Your task to perform on an android device: change the clock display to show seconds Image 0: 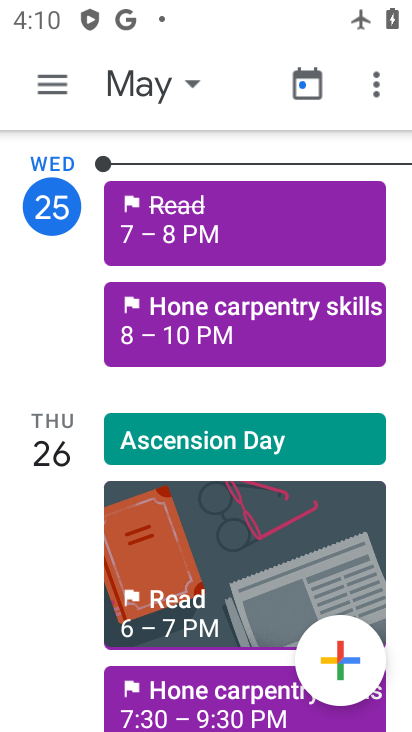
Step 0: press home button
Your task to perform on an android device: change the clock display to show seconds Image 1: 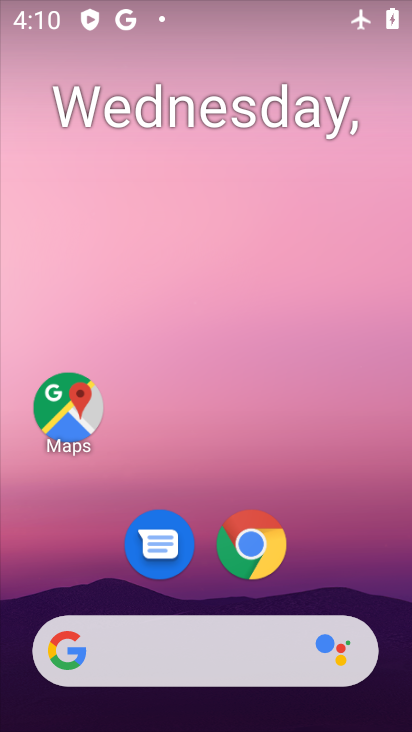
Step 1: drag from (359, 521) to (377, 299)
Your task to perform on an android device: change the clock display to show seconds Image 2: 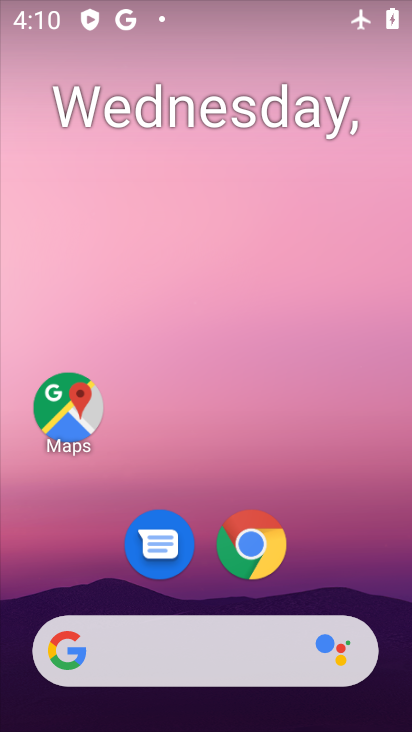
Step 2: drag from (342, 567) to (385, 220)
Your task to perform on an android device: change the clock display to show seconds Image 3: 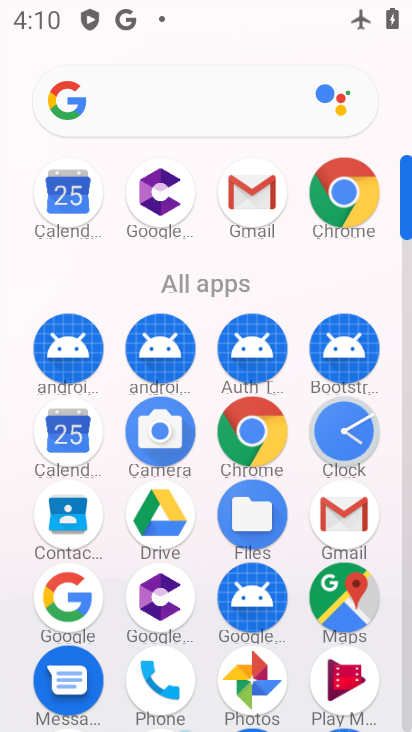
Step 3: click (359, 447)
Your task to perform on an android device: change the clock display to show seconds Image 4: 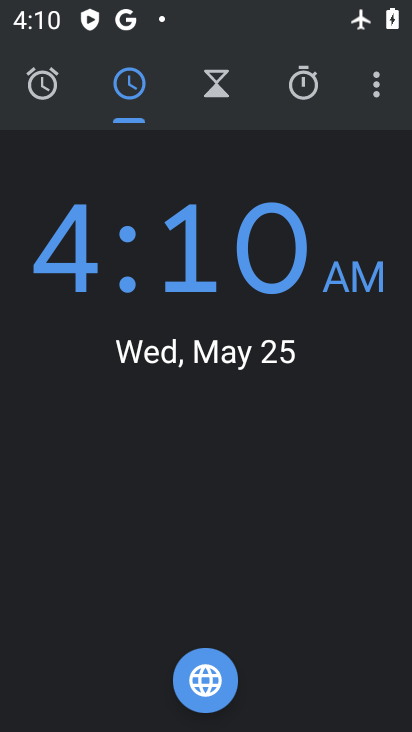
Step 4: click (371, 97)
Your task to perform on an android device: change the clock display to show seconds Image 5: 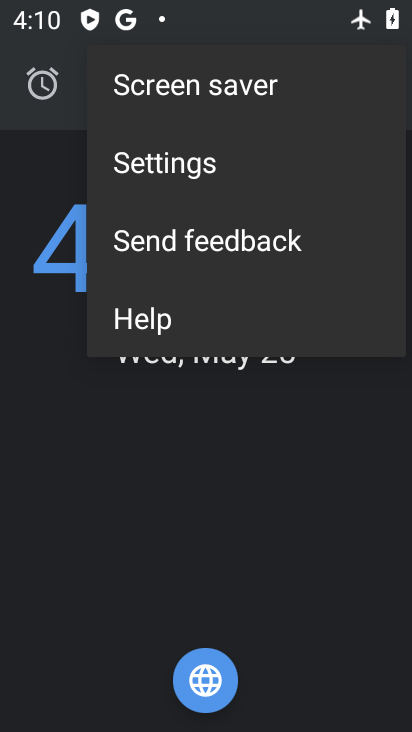
Step 5: click (267, 184)
Your task to perform on an android device: change the clock display to show seconds Image 6: 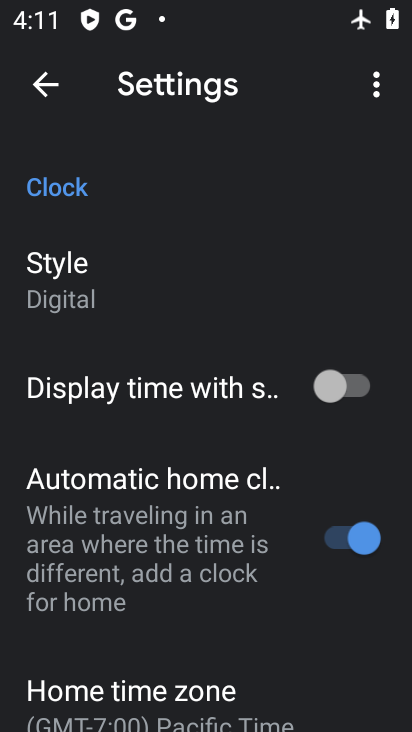
Step 6: drag from (268, 416) to (279, 250)
Your task to perform on an android device: change the clock display to show seconds Image 7: 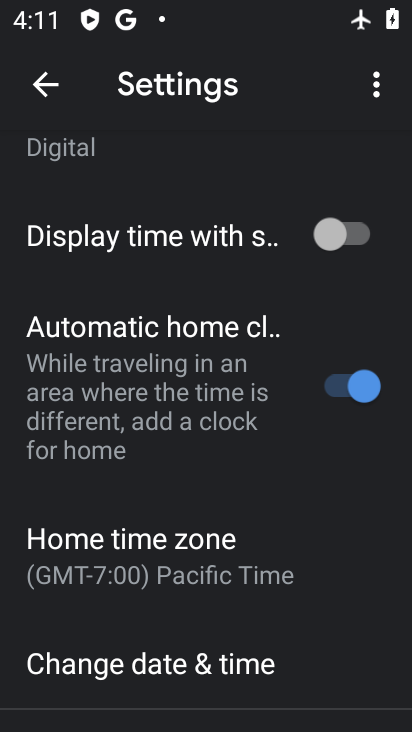
Step 7: drag from (290, 484) to (307, 369)
Your task to perform on an android device: change the clock display to show seconds Image 8: 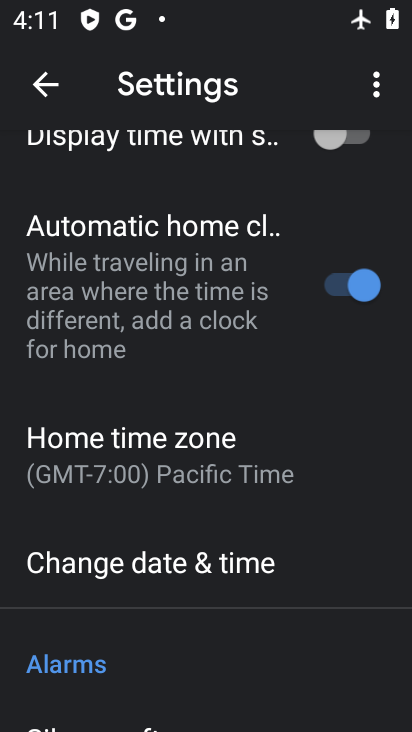
Step 8: drag from (297, 486) to (292, 363)
Your task to perform on an android device: change the clock display to show seconds Image 9: 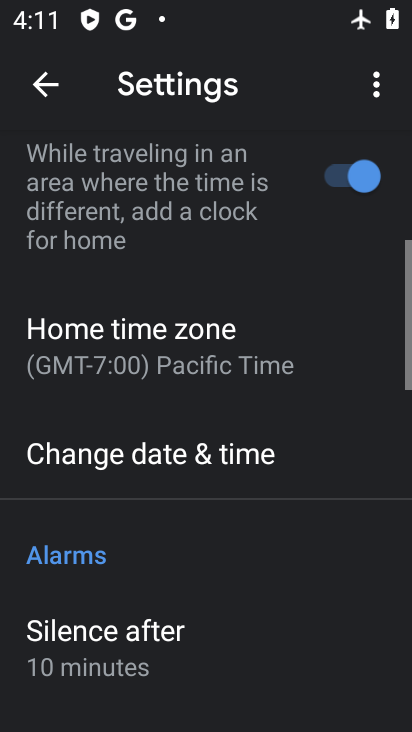
Step 9: drag from (281, 496) to (288, 406)
Your task to perform on an android device: change the clock display to show seconds Image 10: 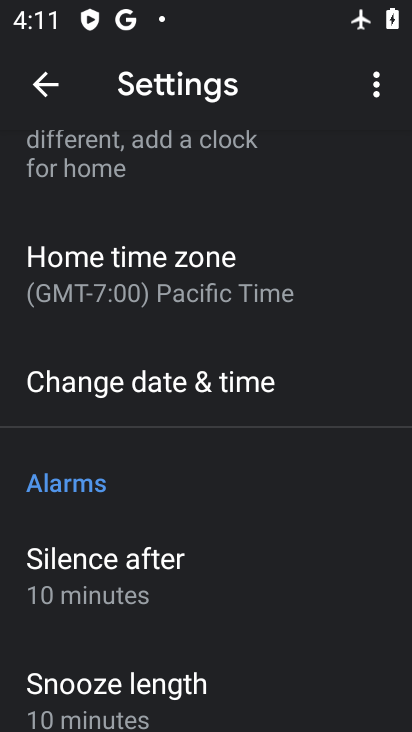
Step 10: drag from (267, 548) to (288, 433)
Your task to perform on an android device: change the clock display to show seconds Image 11: 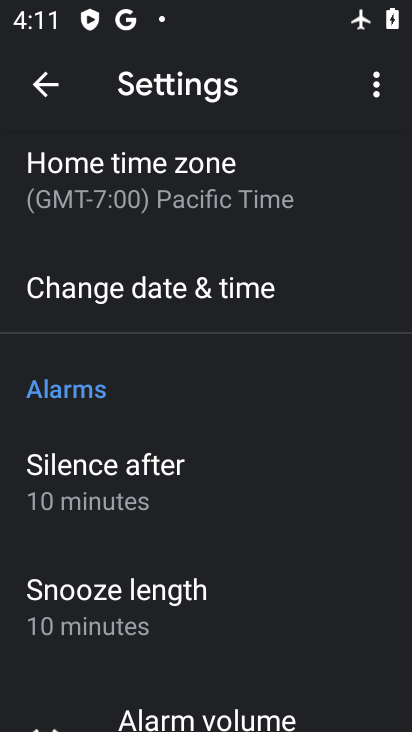
Step 11: drag from (273, 560) to (297, 426)
Your task to perform on an android device: change the clock display to show seconds Image 12: 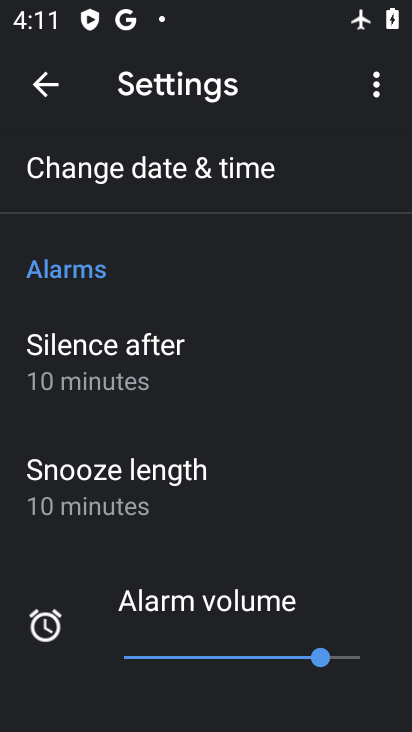
Step 12: drag from (312, 536) to (324, 352)
Your task to perform on an android device: change the clock display to show seconds Image 13: 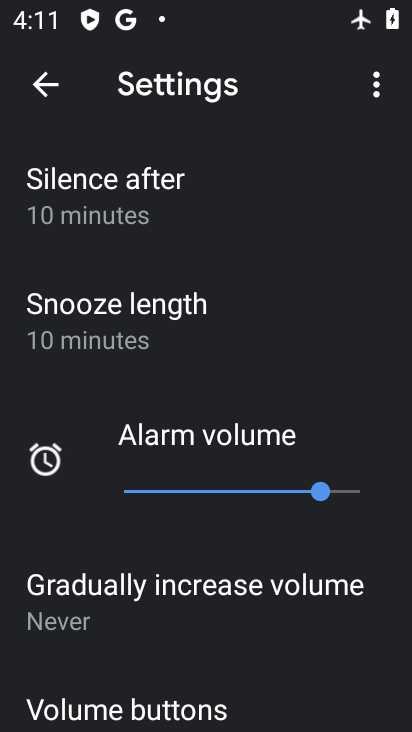
Step 13: drag from (316, 552) to (329, 348)
Your task to perform on an android device: change the clock display to show seconds Image 14: 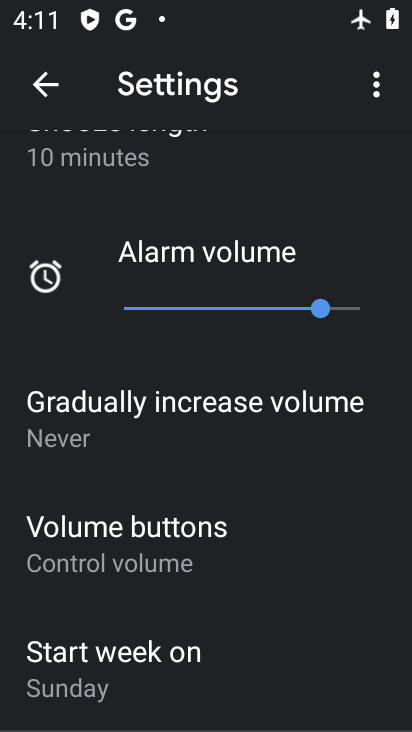
Step 14: drag from (312, 590) to (344, 375)
Your task to perform on an android device: change the clock display to show seconds Image 15: 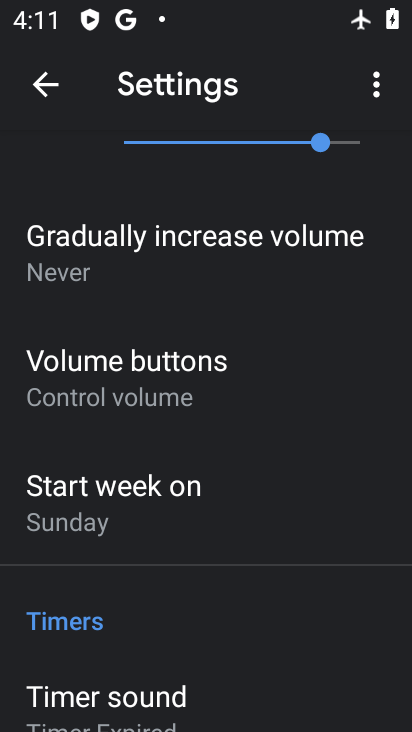
Step 15: drag from (334, 628) to (357, 405)
Your task to perform on an android device: change the clock display to show seconds Image 16: 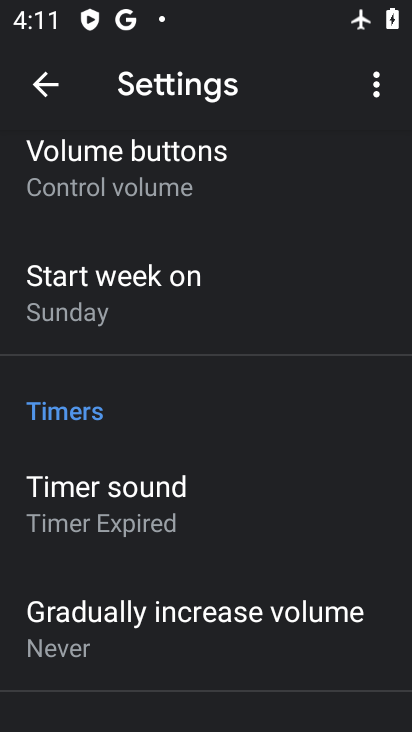
Step 16: drag from (332, 650) to (339, 348)
Your task to perform on an android device: change the clock display to show seconds Image 17: 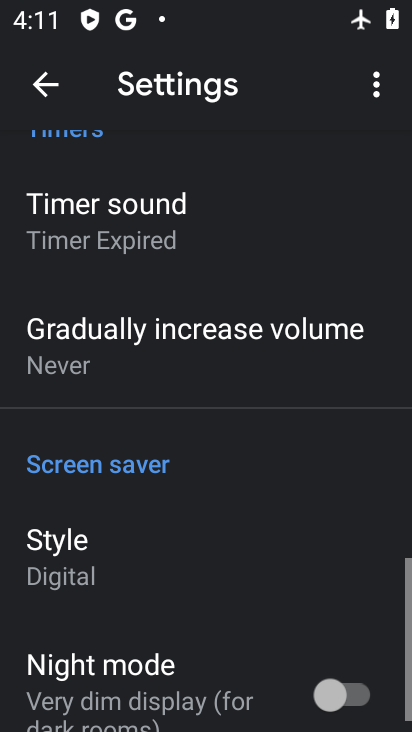
Step 17: drag from (338, 308) to (303, 483)
Your task to perform on an android device: change the clock display to show seconds Image 18: 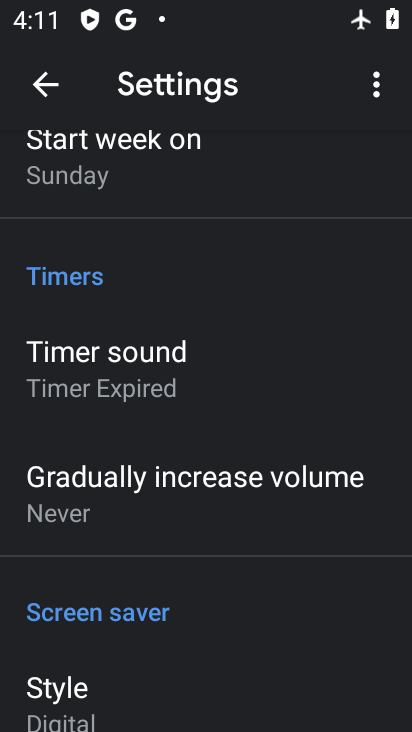
Step 18: drag from (323, 352) to (316, 519)
Your task to perform on an android device: change the clock display to show seconds Image 19: 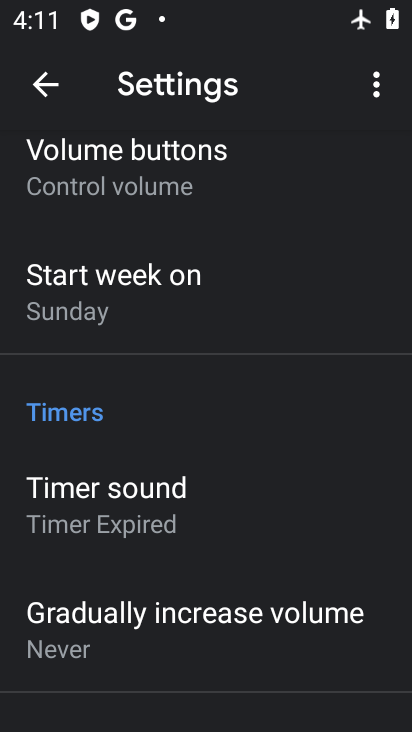
Step 19: drag from (312, 337) to (285, 490)
Your task to perform on an android device: change the clock display to show seconds Image 20: 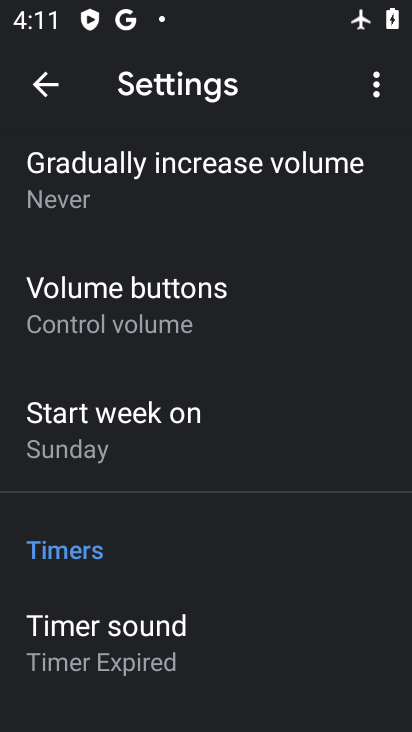
Step 20: drag from (301, 285) to (295, 453)
Your task to perform on an android device: change the clock display to show seconds Image 21: 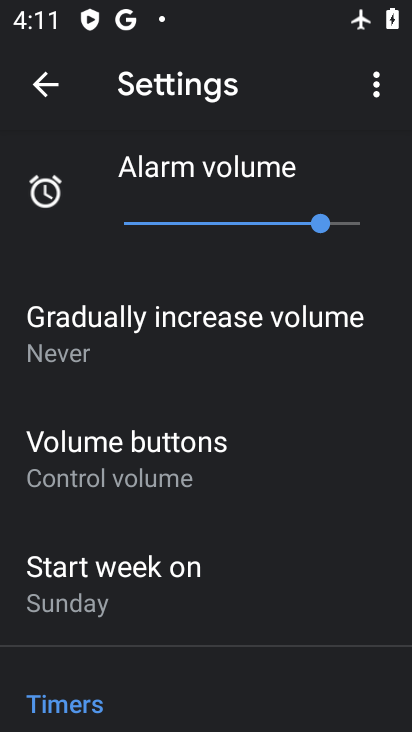
Step 21: drag from (320, 176) to (292, 389)
Your task to perform on an android device: change the clock display to show seconds Image 22: 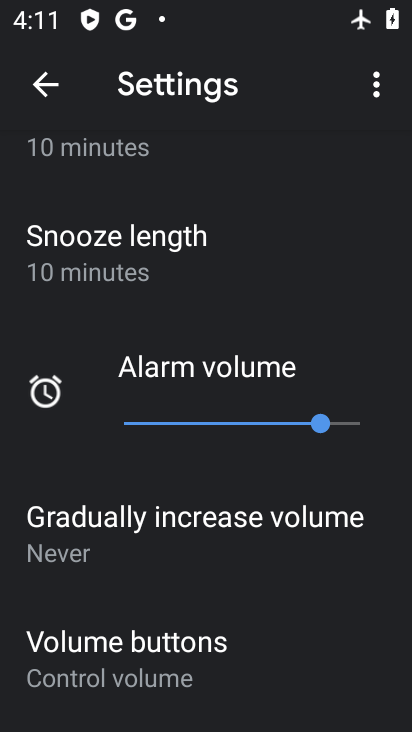
Step 22: drag from (306, 236) to (306, 369)
Your task to perform on an android device: change the clock display to show seconds Image 23: 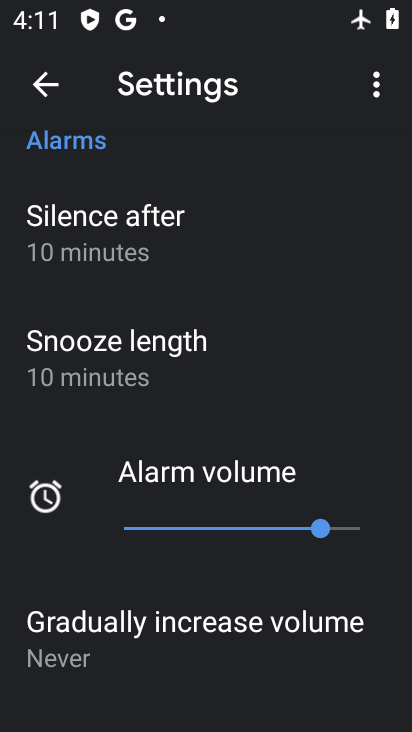
Step 23: drag from (314, 242) to (300, 381)
Your task to perform on an android device: change the clock display to show seconds Image 24: 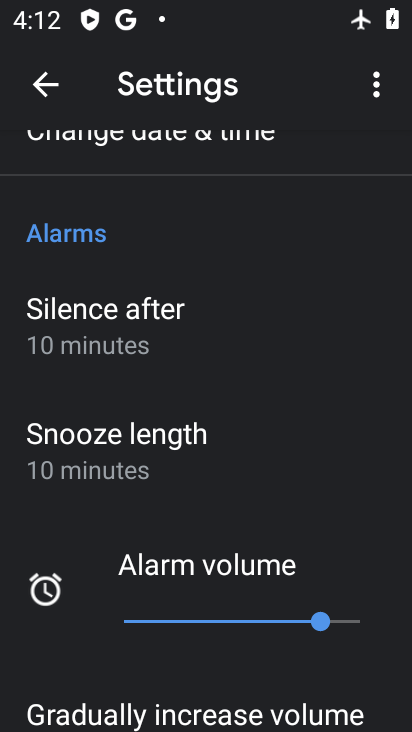
Step 24: drag from (312, 301) to (311, 389)
Your task to perform on an android device: change the clock display to show seconds Image 25: 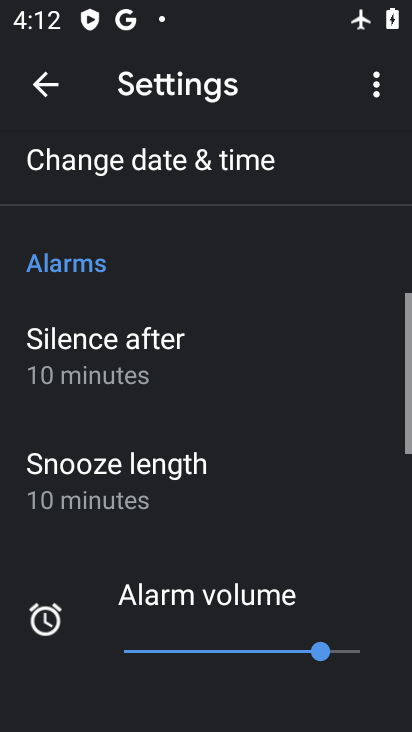
Step 25: drag from (308, 196) to (284, 353)
Your task to perform on an android device: change the clock display to show seconds Image 26: 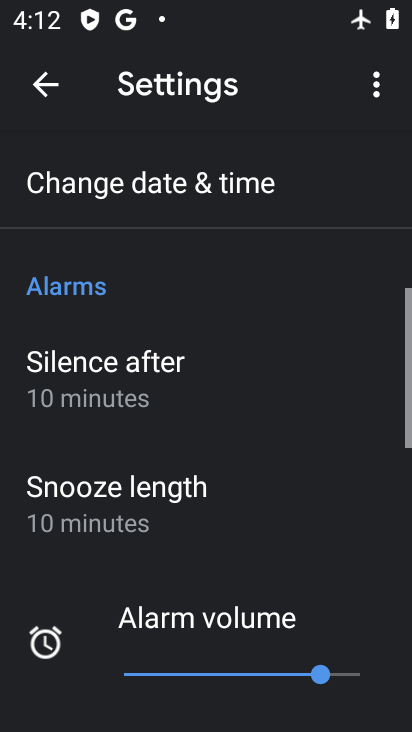
Step 26: drag from (301, 296) to (289, 424)
Your task to perform on an android device: change the clock display to show seconds Image 27: 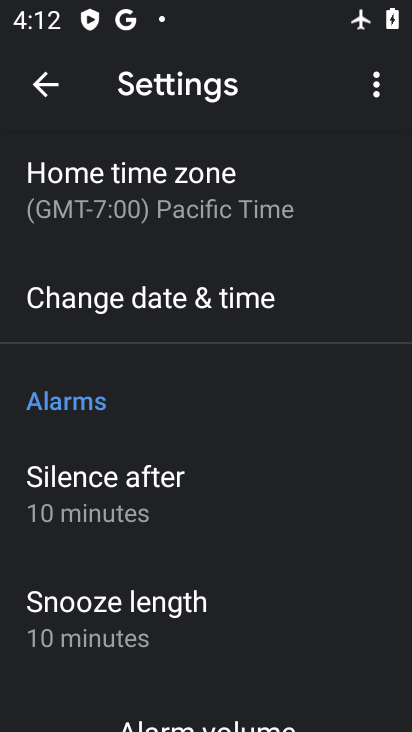
Step 27: drag from (319, 235) to (307, 409)
Your task to perform on an android device: change the clock display to show seconds Image 28: 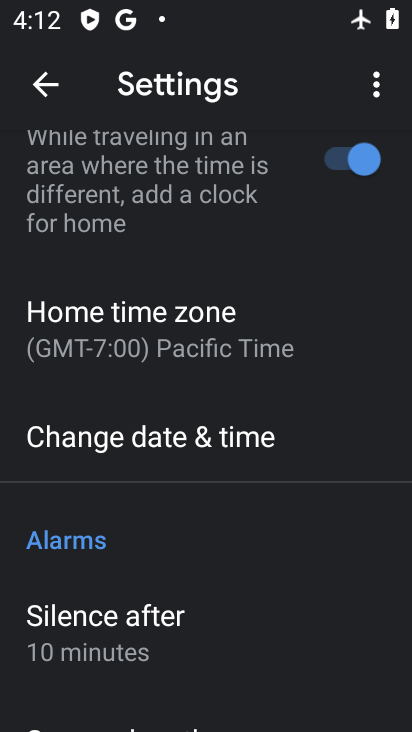
Step 28: drag from (294, 196) to (282, 353)
Your task to perform on an android device: change the clock display to show seconds Image 29: 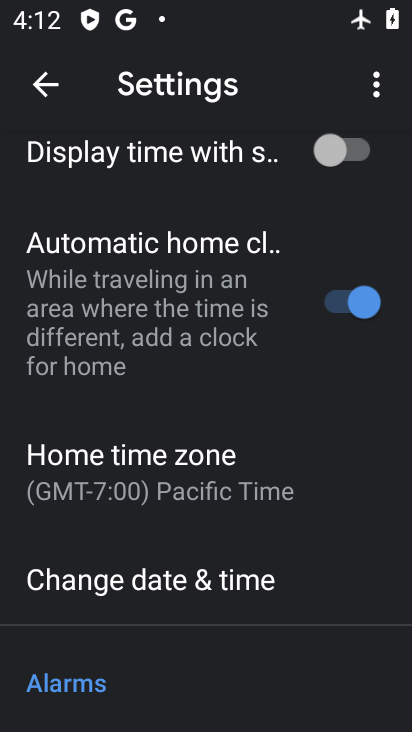
Step 29: drag from (287, 176) to (277, 323)
Your task to perform on an android device: change the clock display to show seconds Image 30: 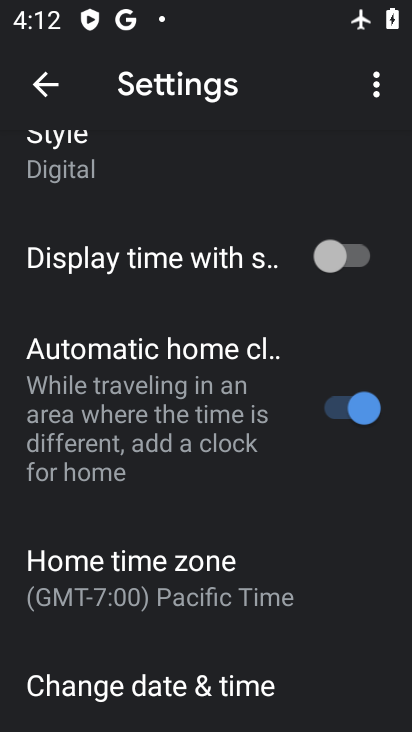
Step 30: click (326, 257)
Your task to perform on an android device: change the clock display to show seconds Image 31: 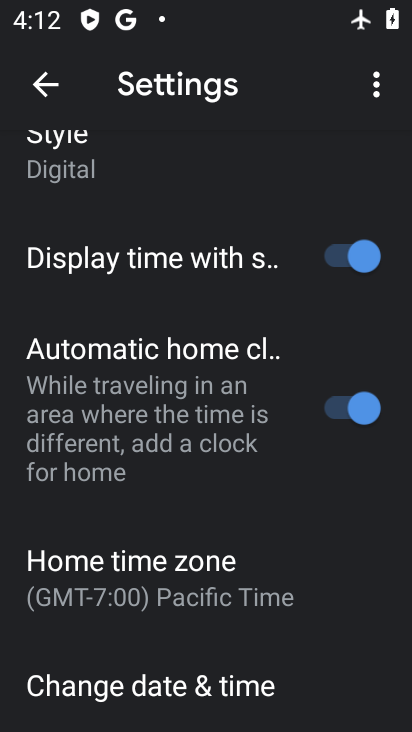
Step 31: task complete